Your task to perform on an android device: Show me recent news Image 0: 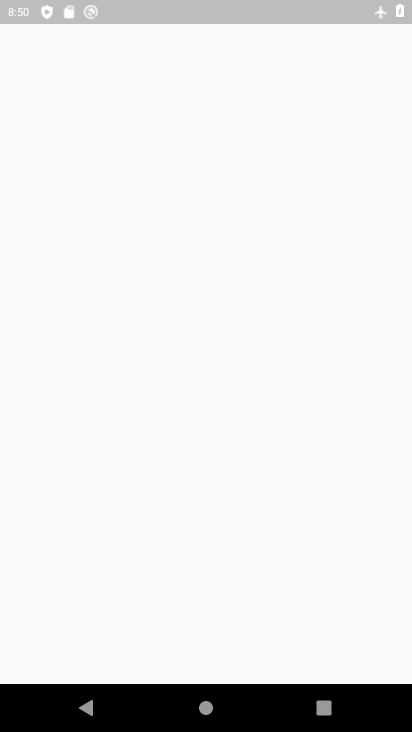
Step 0: press home button
Your task to perform on an android device: Show me recent news Image 1: 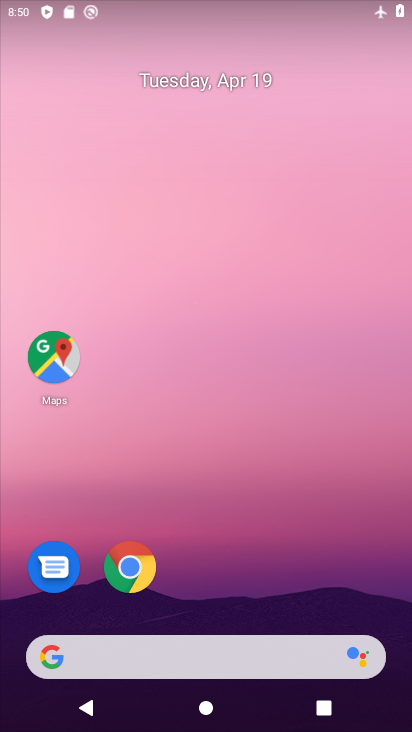
Step 1: drag from (210, 717) to (211, 101)
Your task to perform on an android device: Show me recent news Image 2: 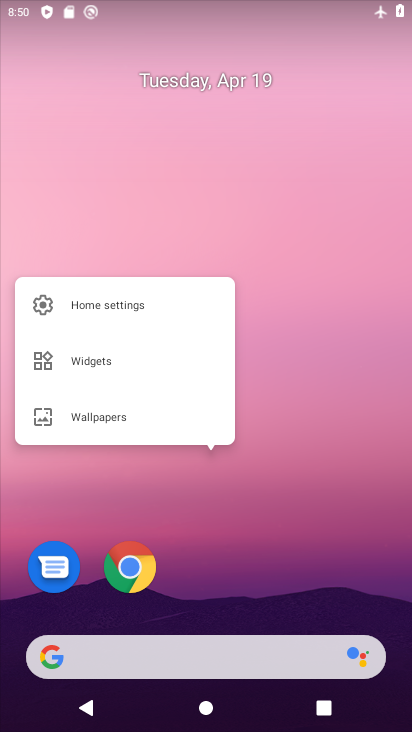
Step 2: click (282, 449)
Your task to perform on an android device: Show me recent news Image 3: 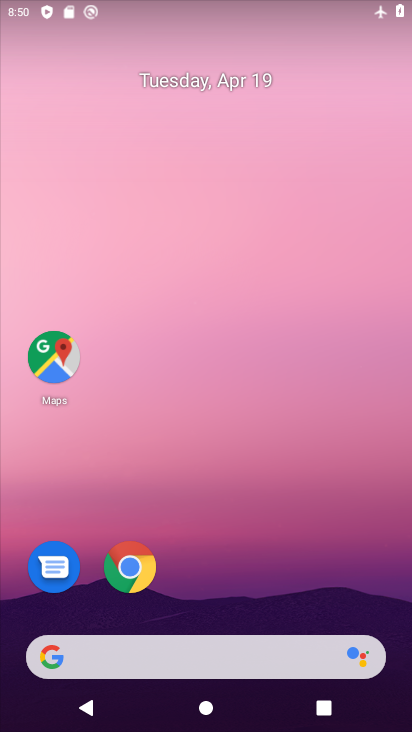
Step 3: drag from (203, 712) to (203, 90)
Your task to perform on an android device: Show me recent news Image 4: 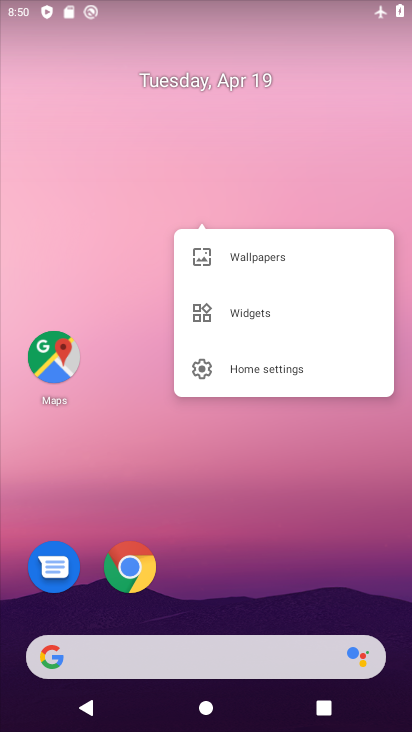
Step 4: click (271, 460)
Your task to perform on an android device: Show me recent news Image 5: 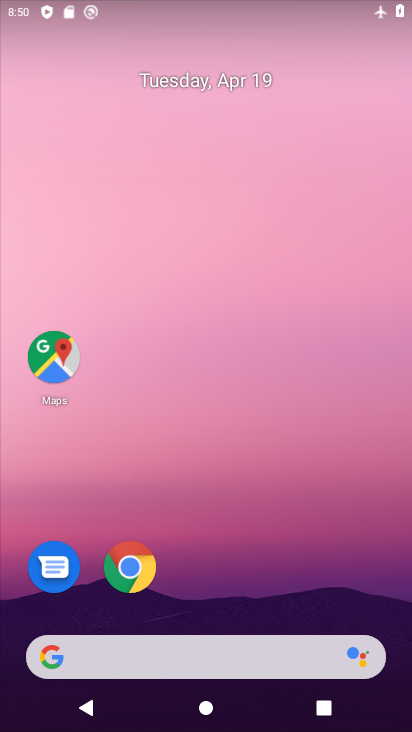
Step 5: drag from (222, 729) to (211, 148)
Your task to perform on an android device: Show me recent news Image 6: 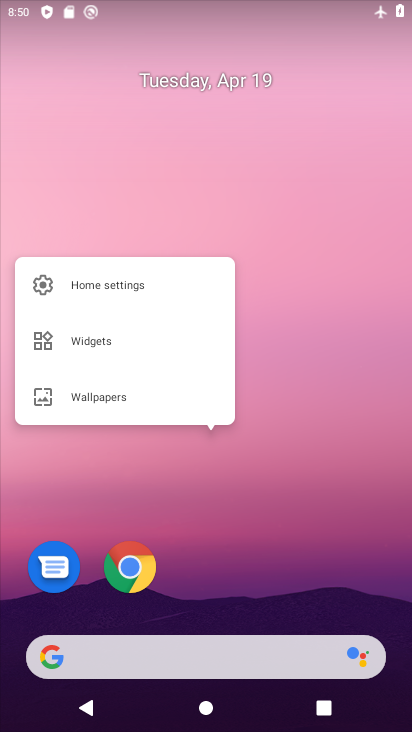
Step 6: click (252, 180)
Your task to perform on an android device: Show me recent news Image 7: 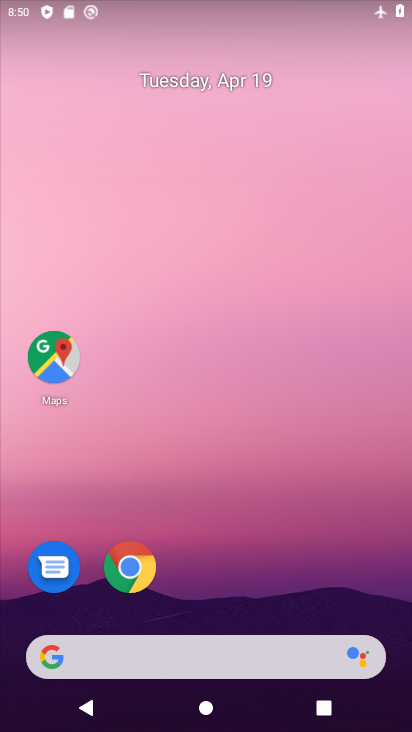
Step 7: drag from (211, 728) to (204, 22)
Your task to perform on an android device: Show me recent news Image 8: 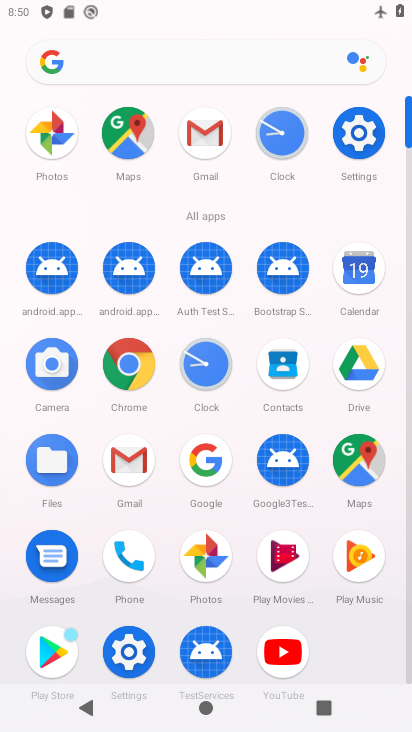
Step 8: click (50, 138)
Your task to perform on an android device: Show me recent news Image 9: 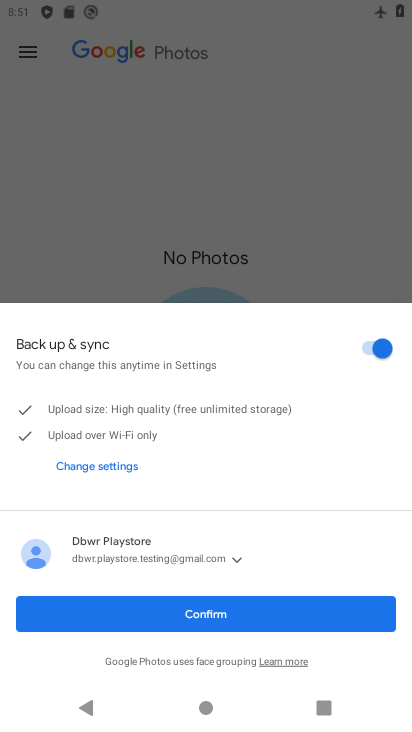
Step 9: click (221, 613)
Your task to perform on an android device: Show me recent news Image 10: 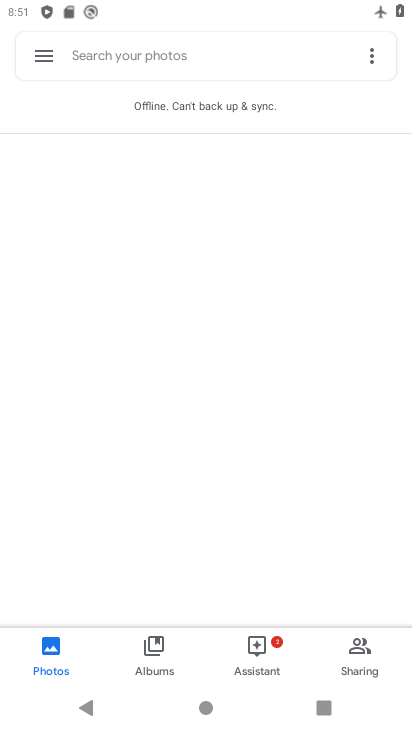
Step 10: task complete